Your task to perform on an android device: Open calendar and show me the fourth week of next month Image 0: 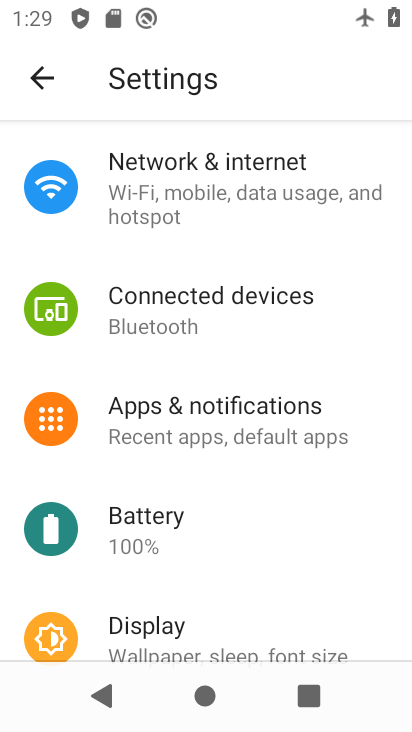
Step 0: press home button
Your task to perform on an android device: Open calendar and show me the fourth week of next month Image 1: 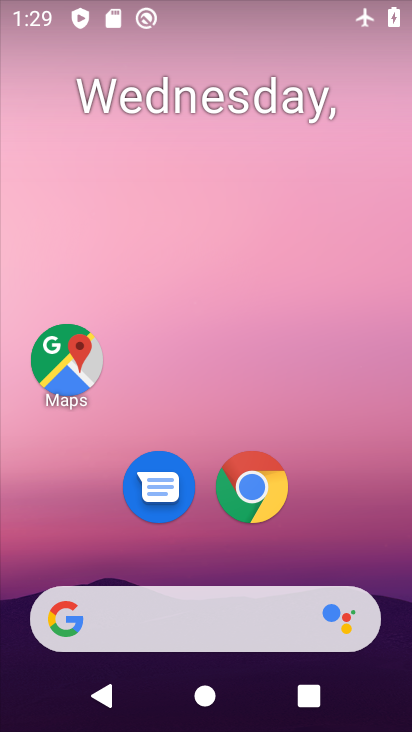
Step 1: drag from (327, 544) to (268, 83)
Your task to perform on an android device: Open calendar and show me the fourth week of next month Image 2: 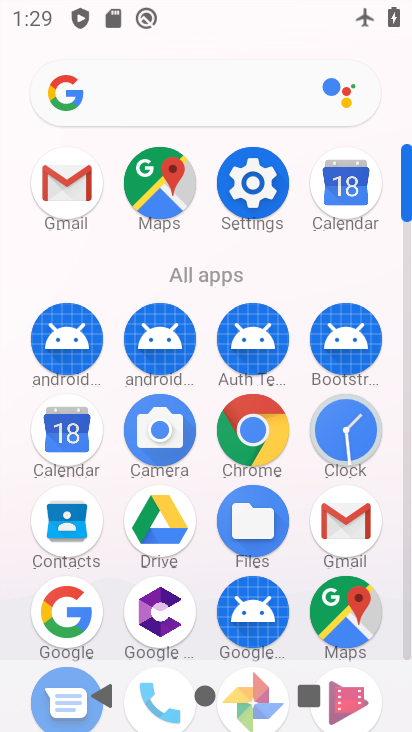
Step 2: click (70, 423)
Your task to perform on an android device: Open calendar and show me the fourth week of next month Image 3: 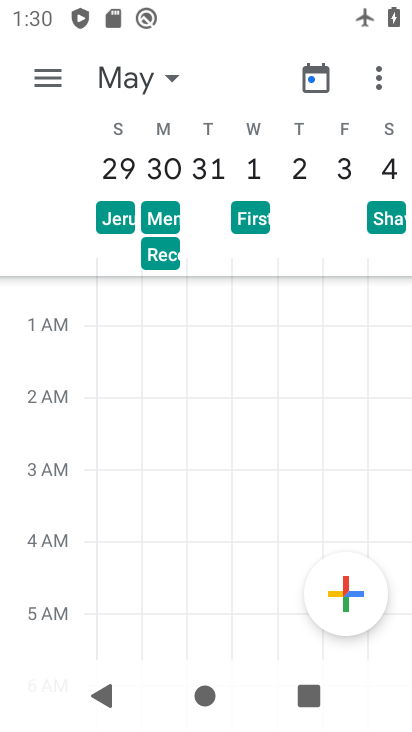
Step 3: click (50, 69)
Your task to perform on an android device: Open calendar and show me the fourth week of next month Image 4: 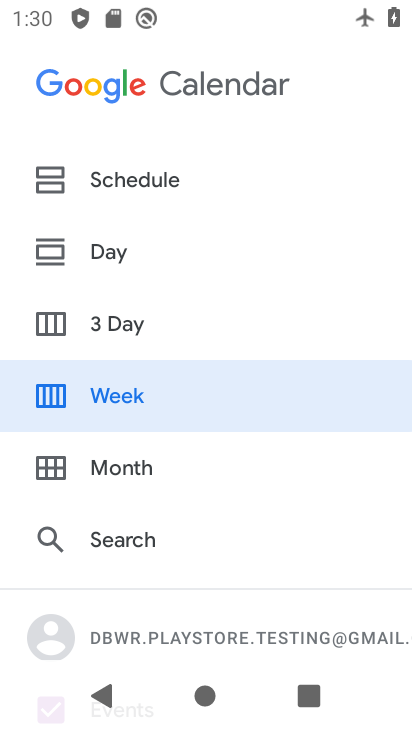
Step 4: click (134, 407)
Your task to perform on an android device: Open calendar and show me the fourth week of next month Image 5: 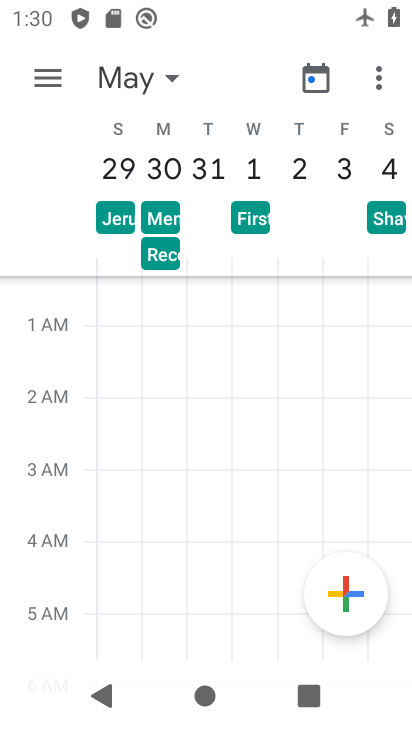
Step 5: click (167, 78)
Your task to perform on an android device: Open calendar and show me the fourth week of next month Image 6: 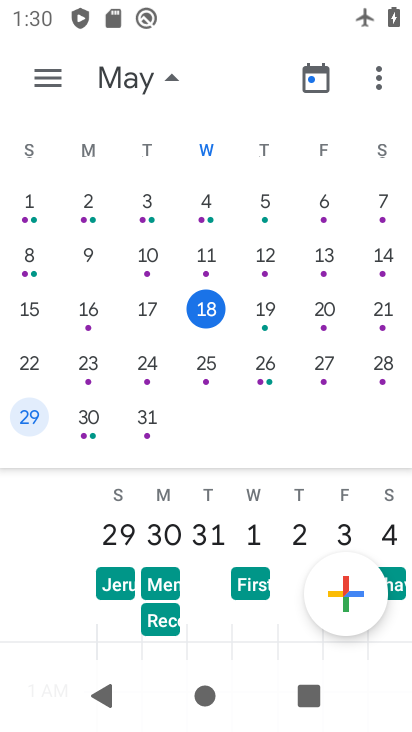
Step 6: drag from (367, 271) to (13, 210)
Your task to perform on an android device: Open calendar and show me the fourth week of next month Image 7: 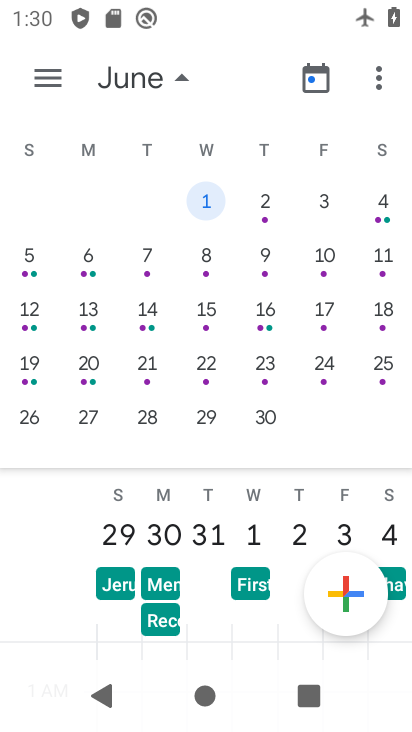
Step 7: click (199, 352)
Your task to perform on an android device: Open calendar and show me the fourth week of next month Image 8: 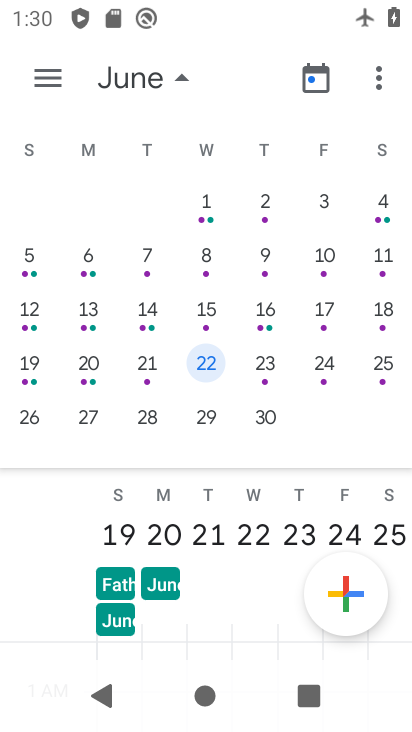
Step 8: task complete